Your task to perform on an android device: remove spam from my inbox in the gmail app Image 0: 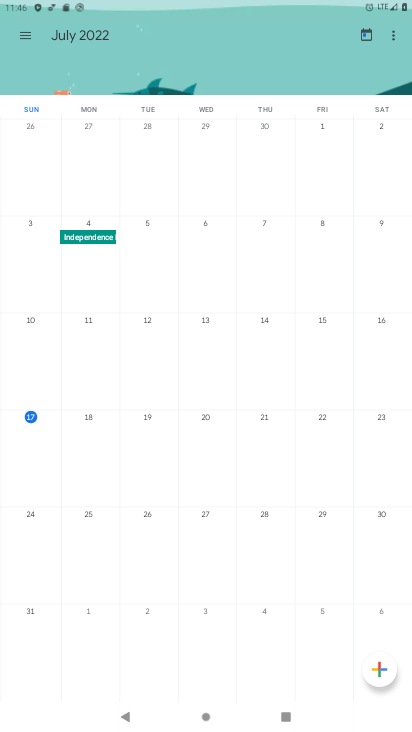
Step 0: press home button
Your task to perform on an android device: remove spam from my inbox in the gmail app Image 1: 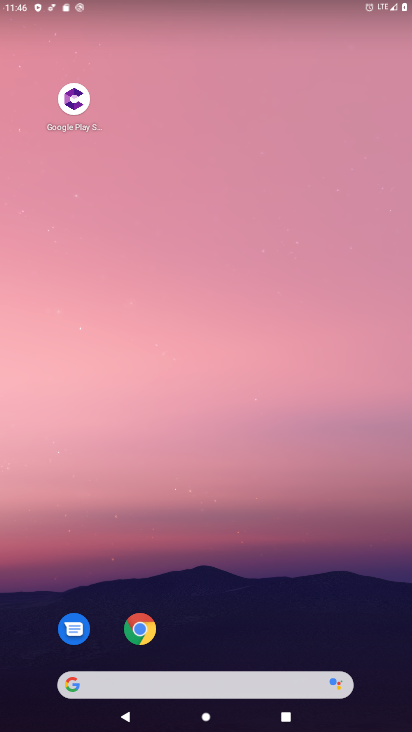
Step 1: drag from (283, 644) to (313, 94)
Your task to perform on an android device: remove spam from my inbox in the gmail app Image 2: 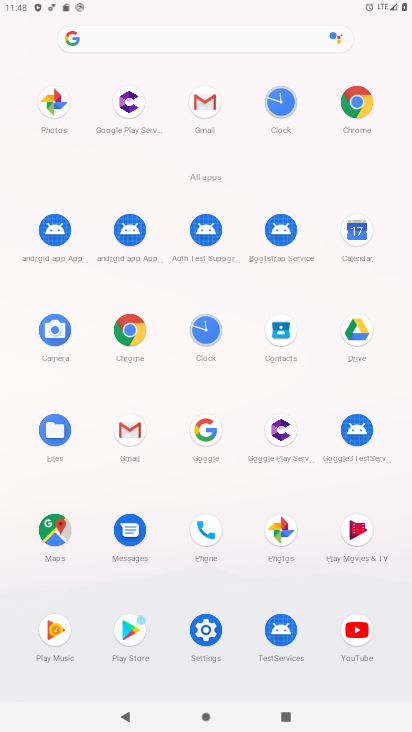
Step 2: click (205, 139)
Your task to perform on an android device: remove spam from my inbox in the gmail app Image 3: 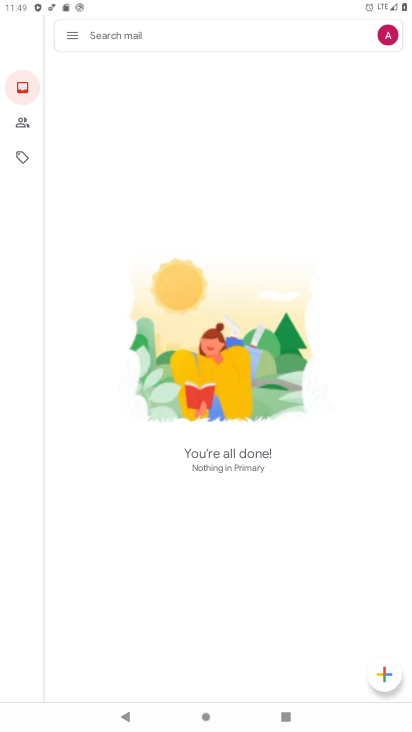
Step 3: click (67, 25)
Your task to perform on an android device: remove spam from my inbox in the gmail app Image 4: 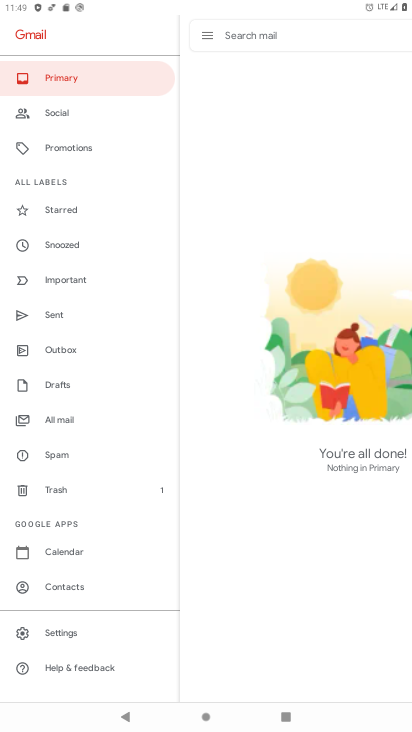
Step 4: task complete